Your task to perform on an android device: open chrome and create a bookmark for the current page Image 0: 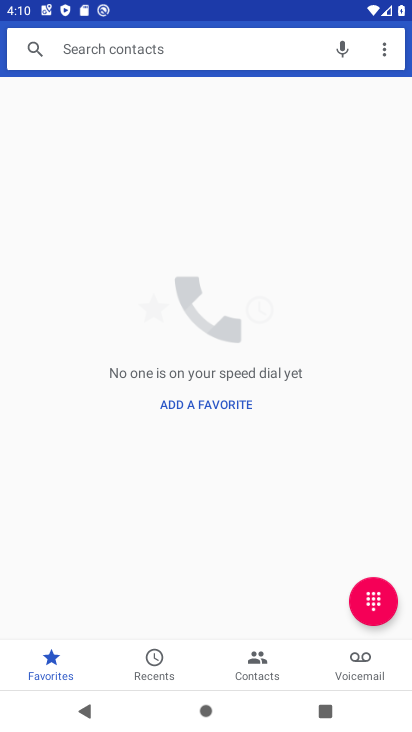
Step 0: press home button
Your task to perform on an android device: open chrome and create a bookmark for the current page Image 1: 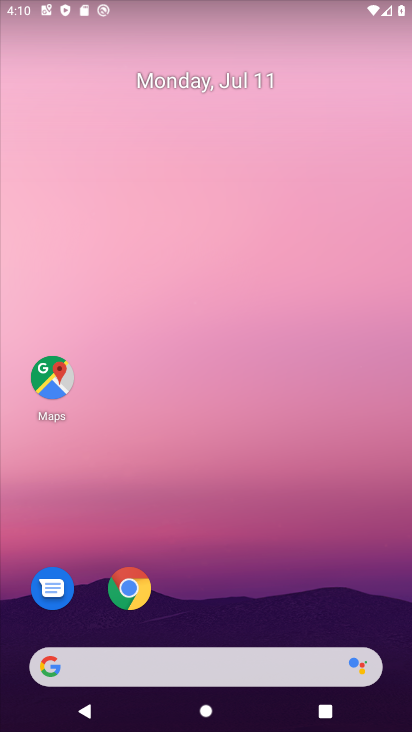
Step 1: drag from (350, 614) to (393, 107)
Your task to perform on an android device: open chrome and create a bookmark for the current page Image 2: 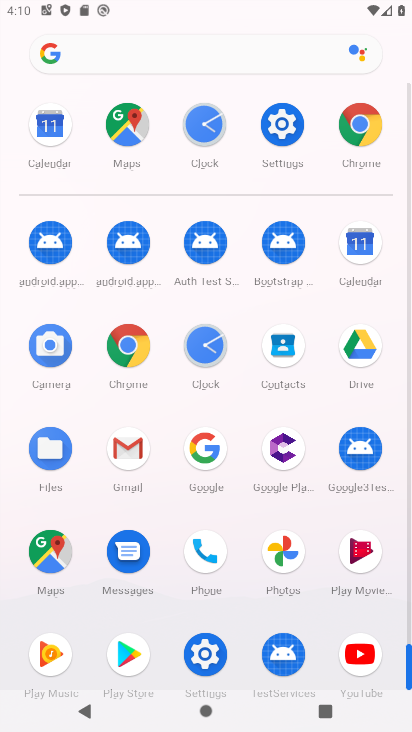
Step 2: click (133, 356)
Your task to perform on an android device: open chrome and create a bookmark for the current page Image 3: 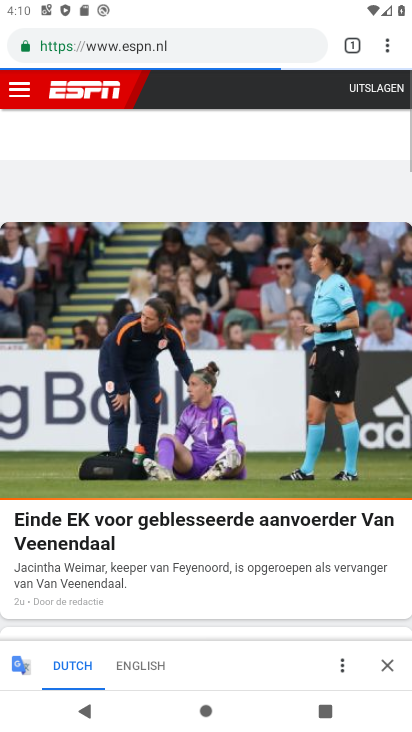
Step 3: click (384, 50)
Your task to perform on an android device: open chrome and create a bookmark for the current page Image 4: 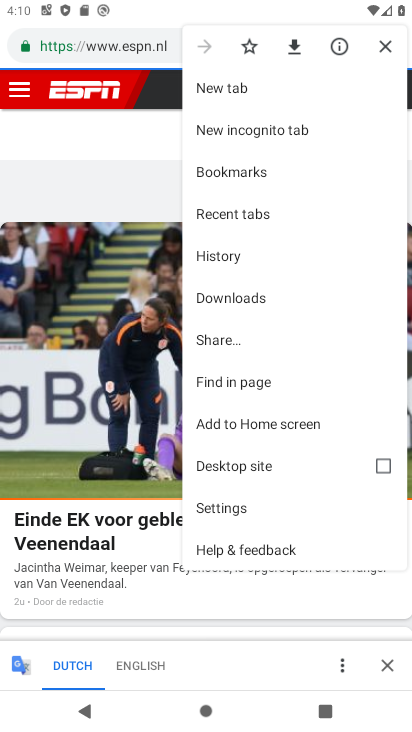
Step 4: click (246, 48)
Your task to perform on an android device: open chrome and create a bookmark for the current page Image 5: 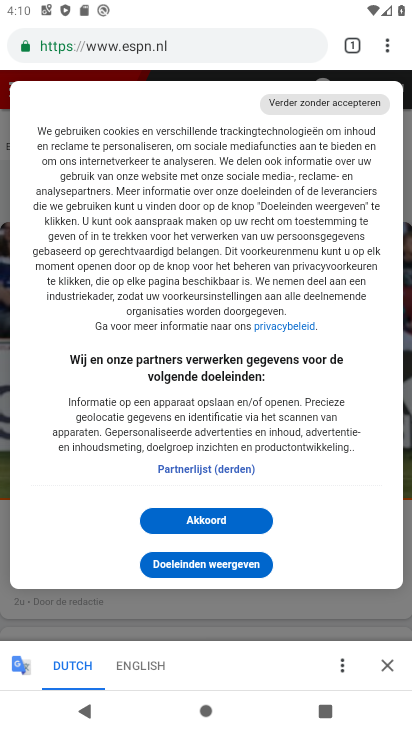
Step 5: task complete